Your task to perform on an android device: Go to Maps Image 0: 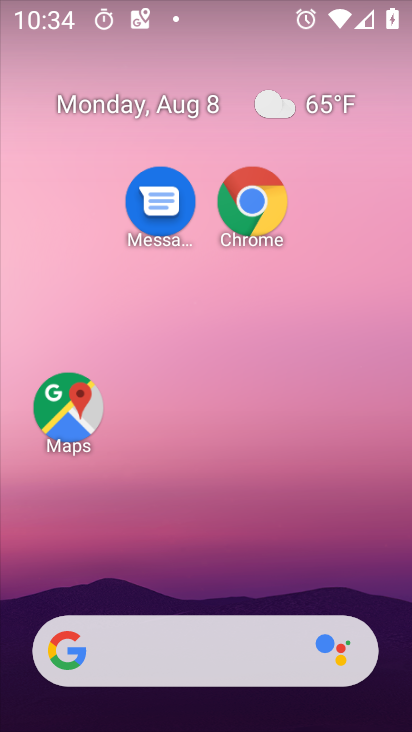
Step 0: press home button
Your task to perform on an android device: Go to Maps Image 1: 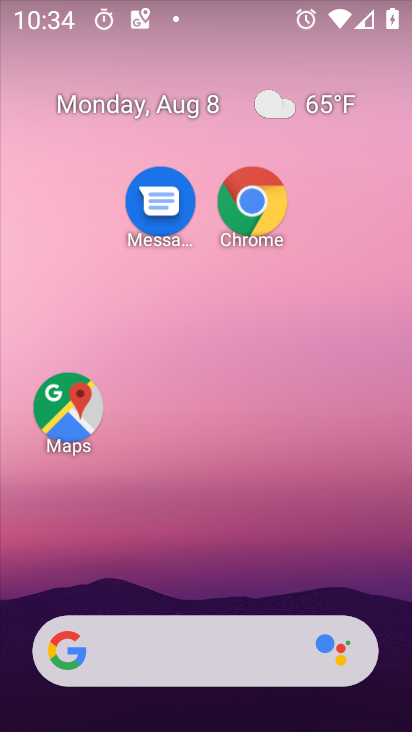
Step 1: click (67, 407)
Your task to perform on an android device: Go to Maps Image 2: 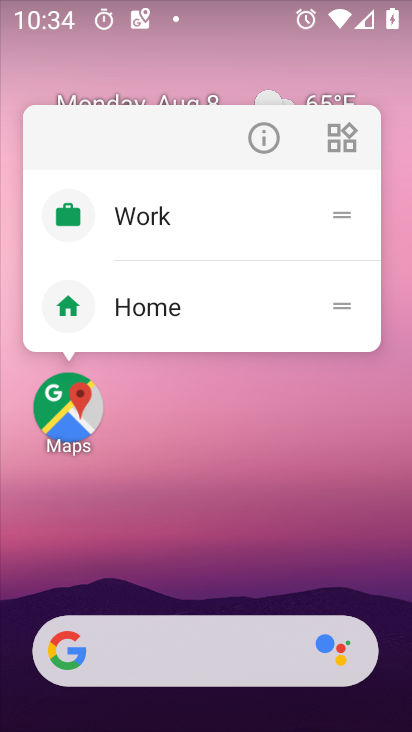
Step 2: click (64, 403)
Your task to perform on an android device: Go to Maps Image 3: 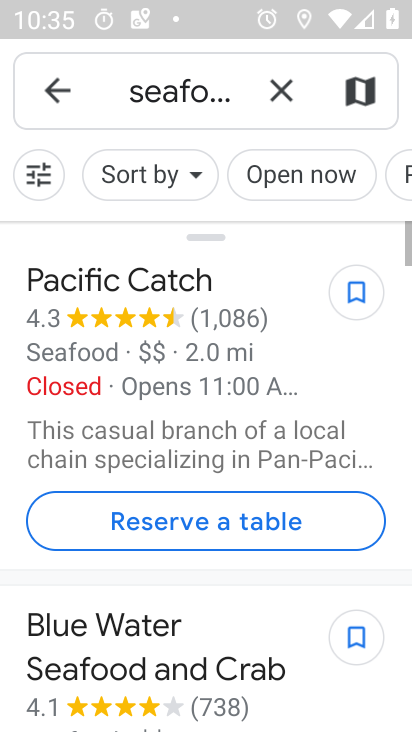
Step 3: click (64, 88)
Your task to perform on an android device: Go to Maps Image 4: 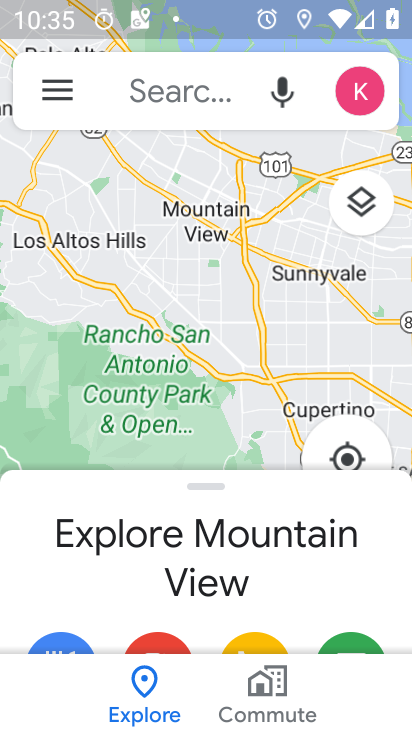
Step 4: task complete